Your task to perform on an android device: Clear the shopping cart on costco.com. Add "asus zenbook" to the cart on costco.com Image 0: 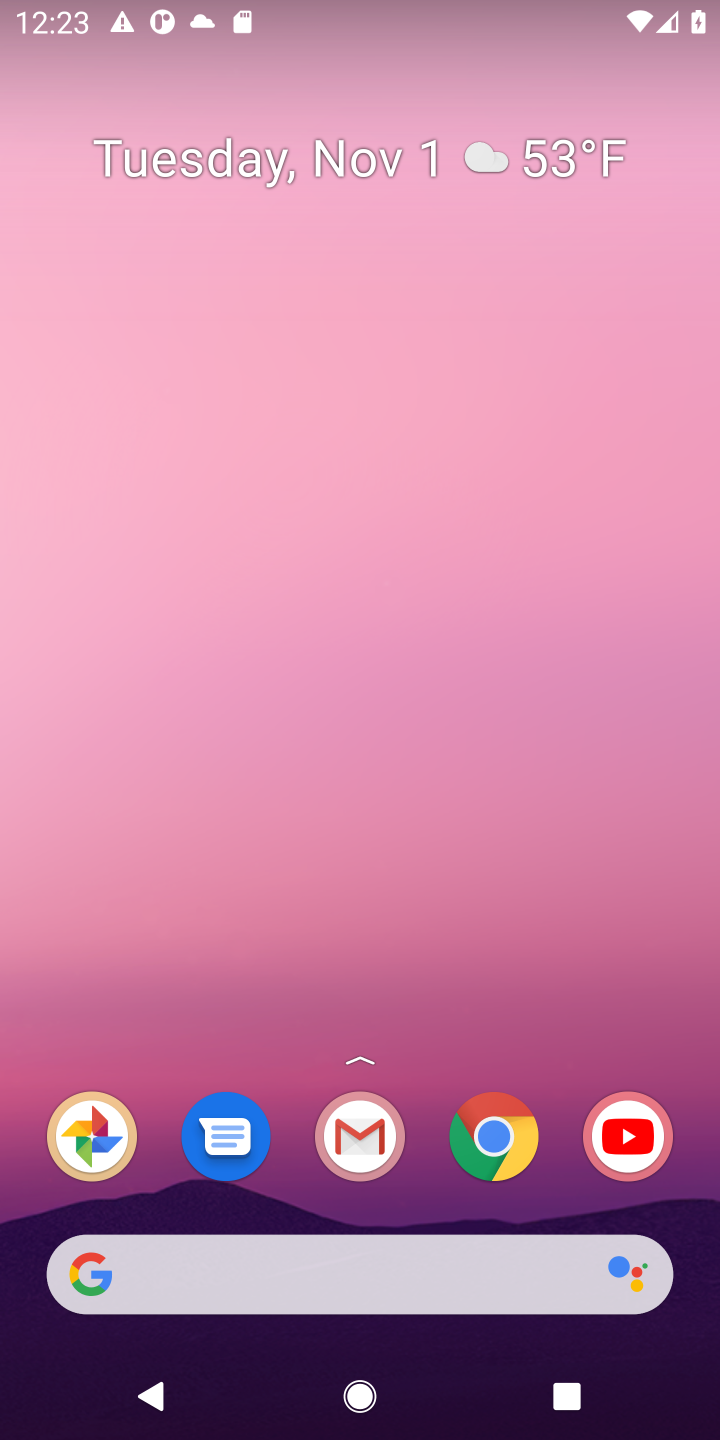
Step 0: press home button
Your task to perform on an android device: Clear the shopping cart on costco.com. Add "asus zenbook" to the cart on costco.com Image 1: 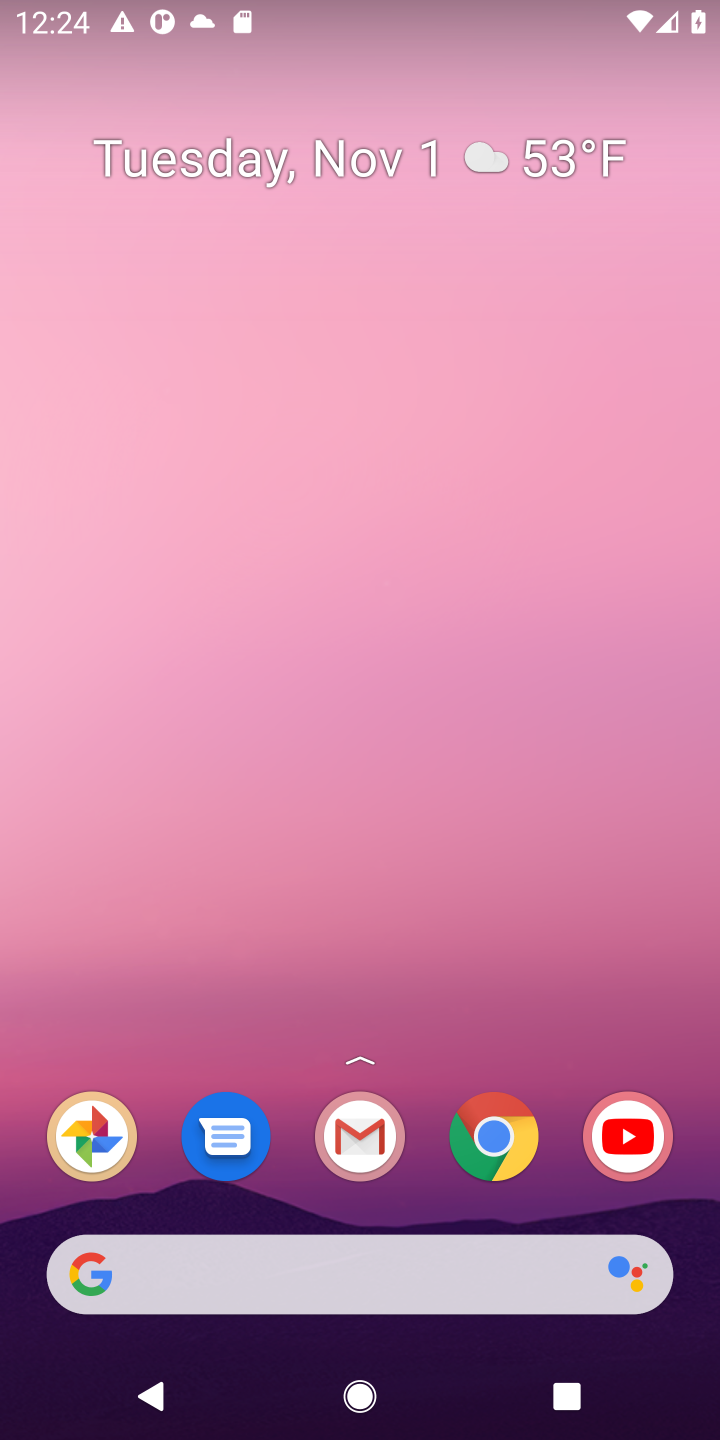
Step 1: click (132, 1262)
Your task to perform on an android device: Clear the shopping cart on costco.com. Add "asus zenbook" to the cart on costco.com Image 2: 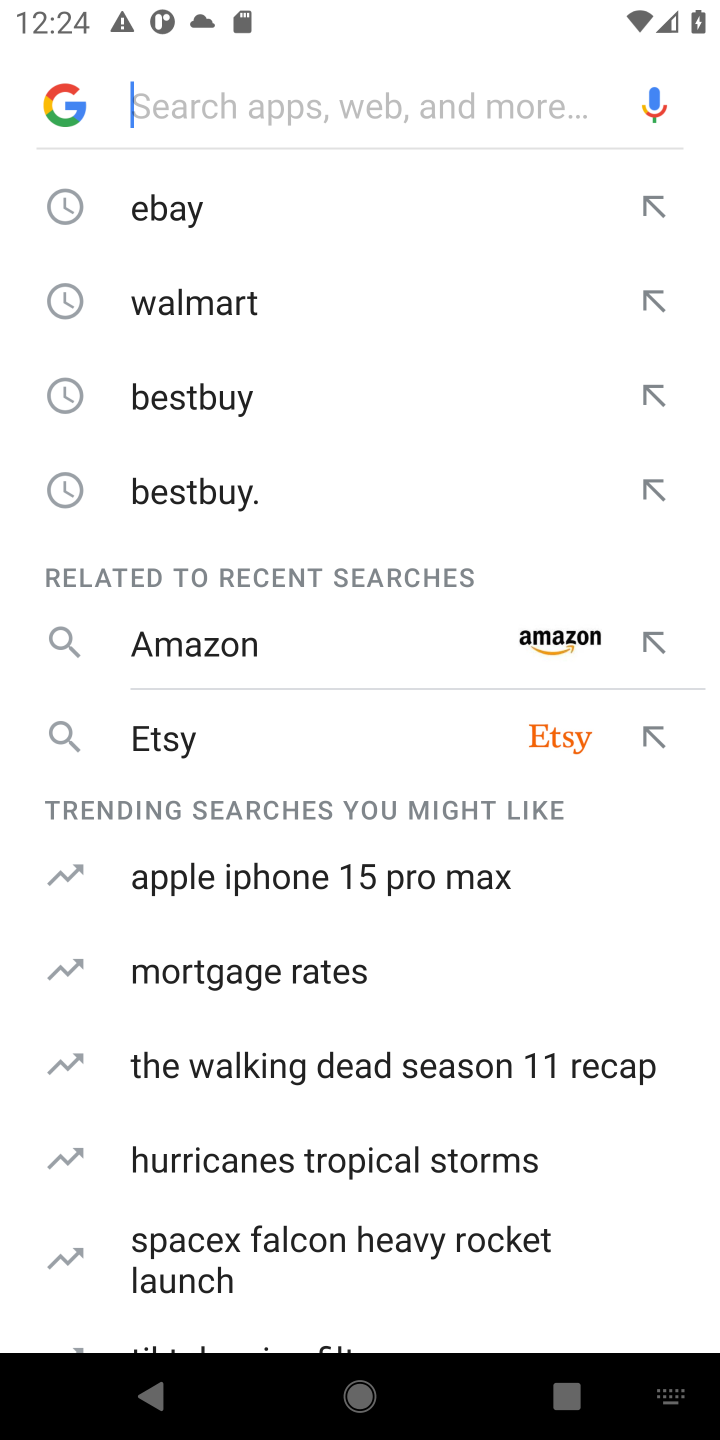
Step 2: type "costco.com"
Your task to perform on an android device: Clear the shopping cart on costco.com. Add "asus zenbook" to the cart on costco.com Image 3: 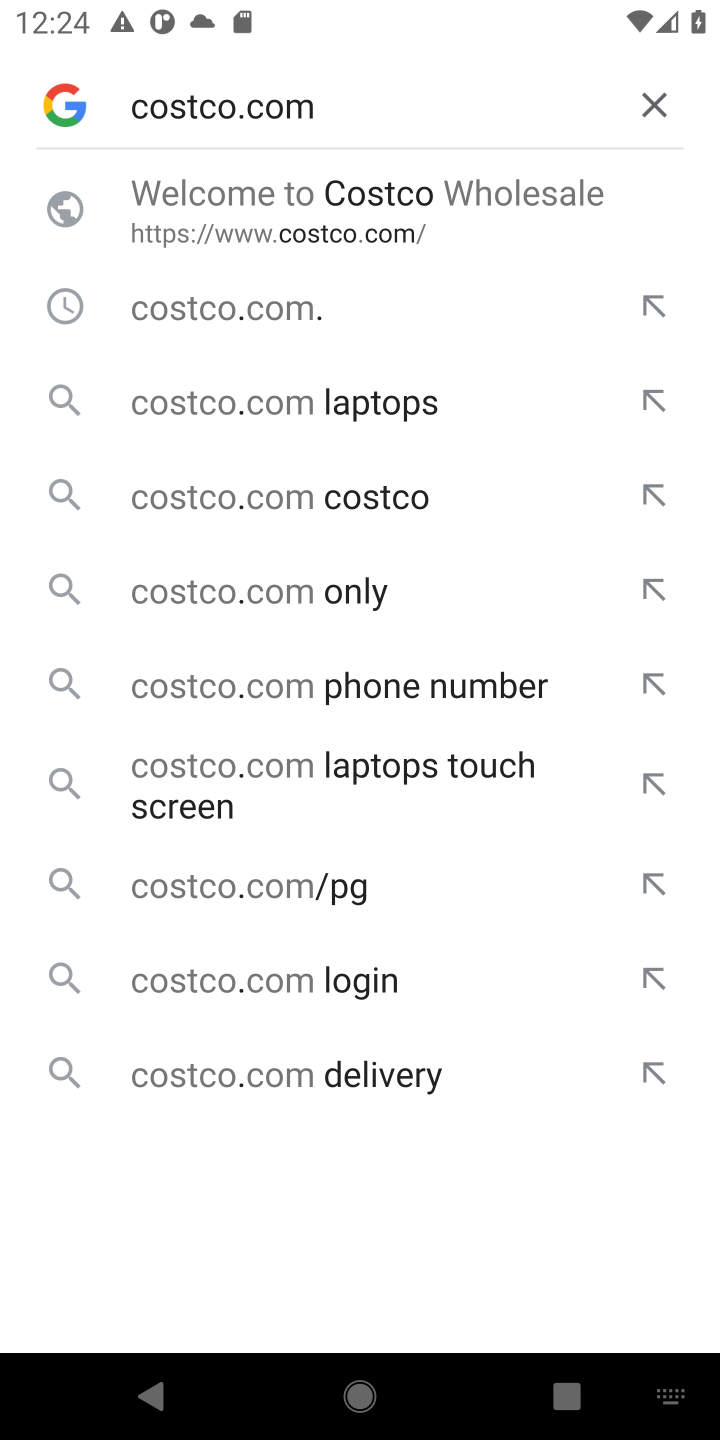
Step 3: press enter
Your task to perform on an android device: Clear the shopping cart on costco.com. Add "asus zenbook" to the cart on costco.com Image 4: 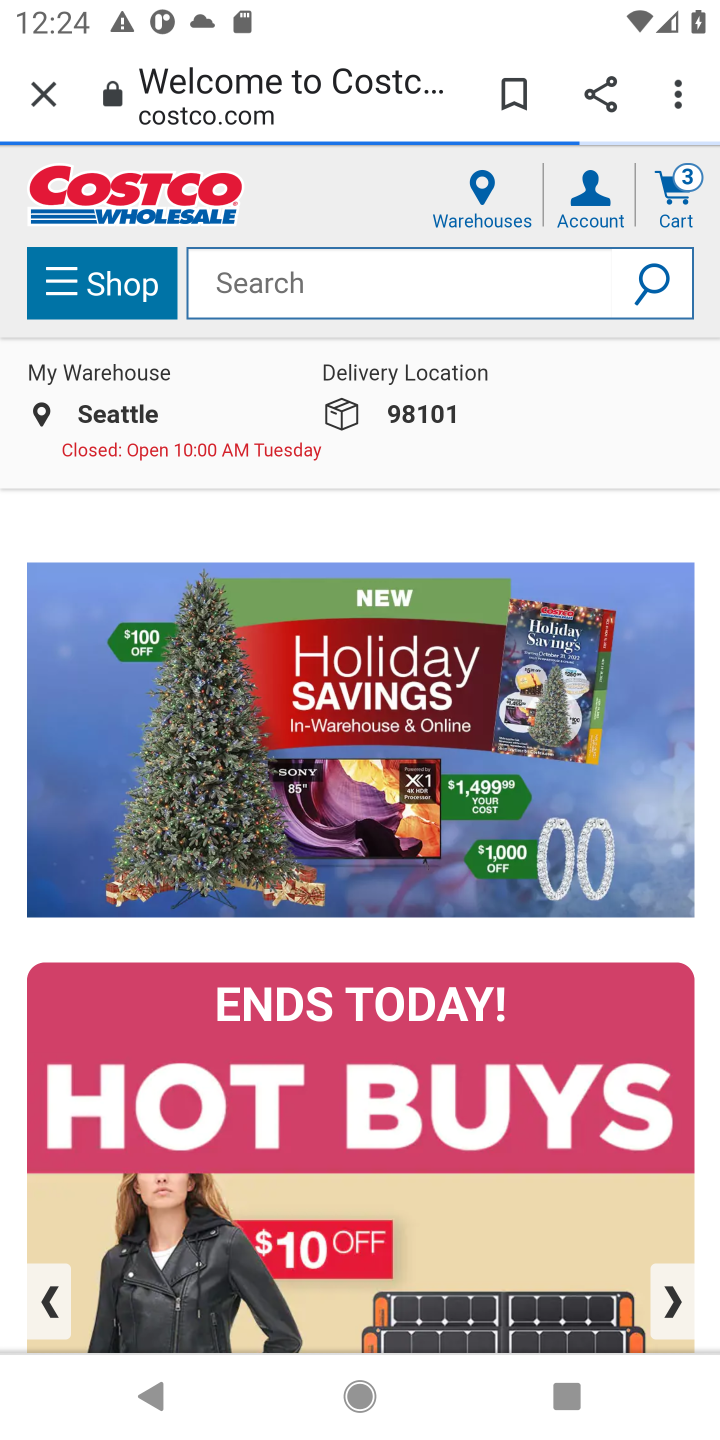
Step 4: click (250, 263)
Your task to perform on an android device: Clear the shopping cart on costco.com. Add "asus zenbook" to the cart on costco.com Image 5: 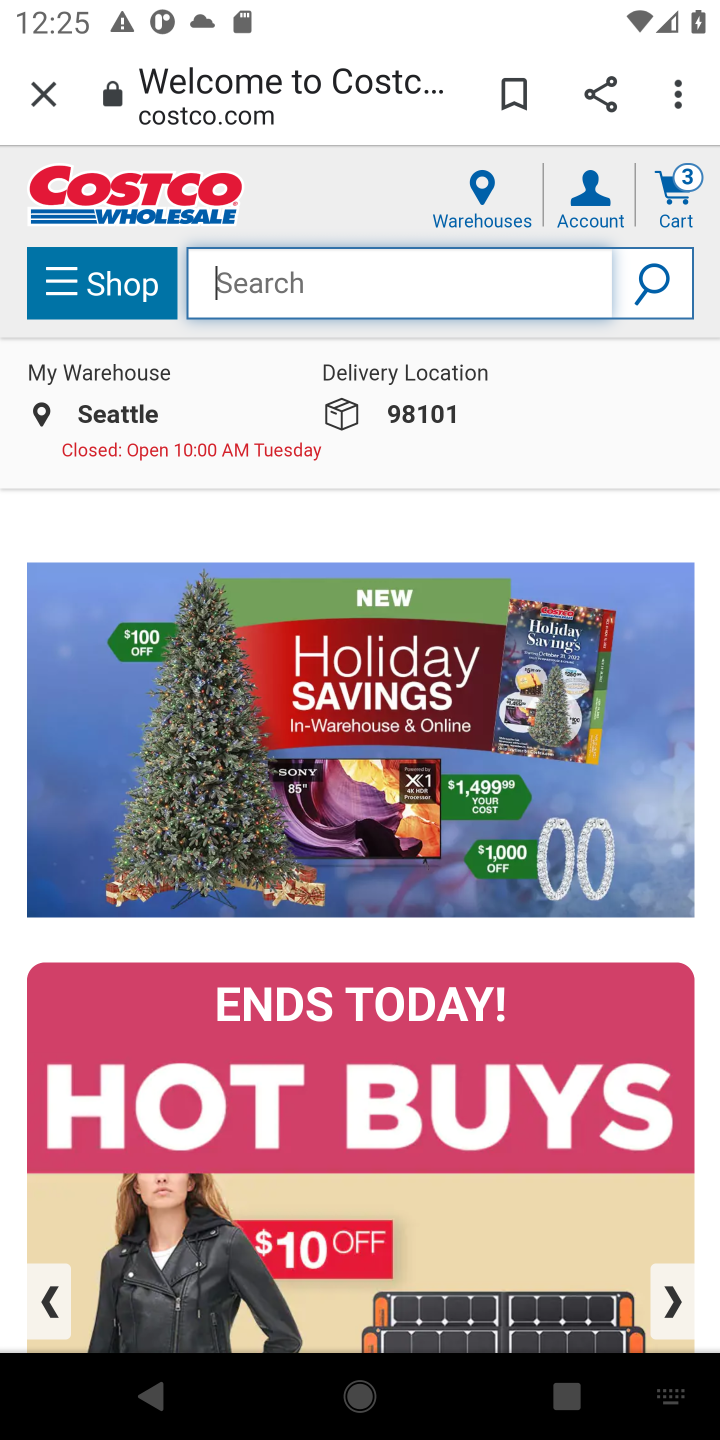
Step 5: type "asus zenbook"
Your task to perform on an android device: Clear the shopping cart on costco.com. Add "asus zenbook" to the cart on costco.com Image 6: 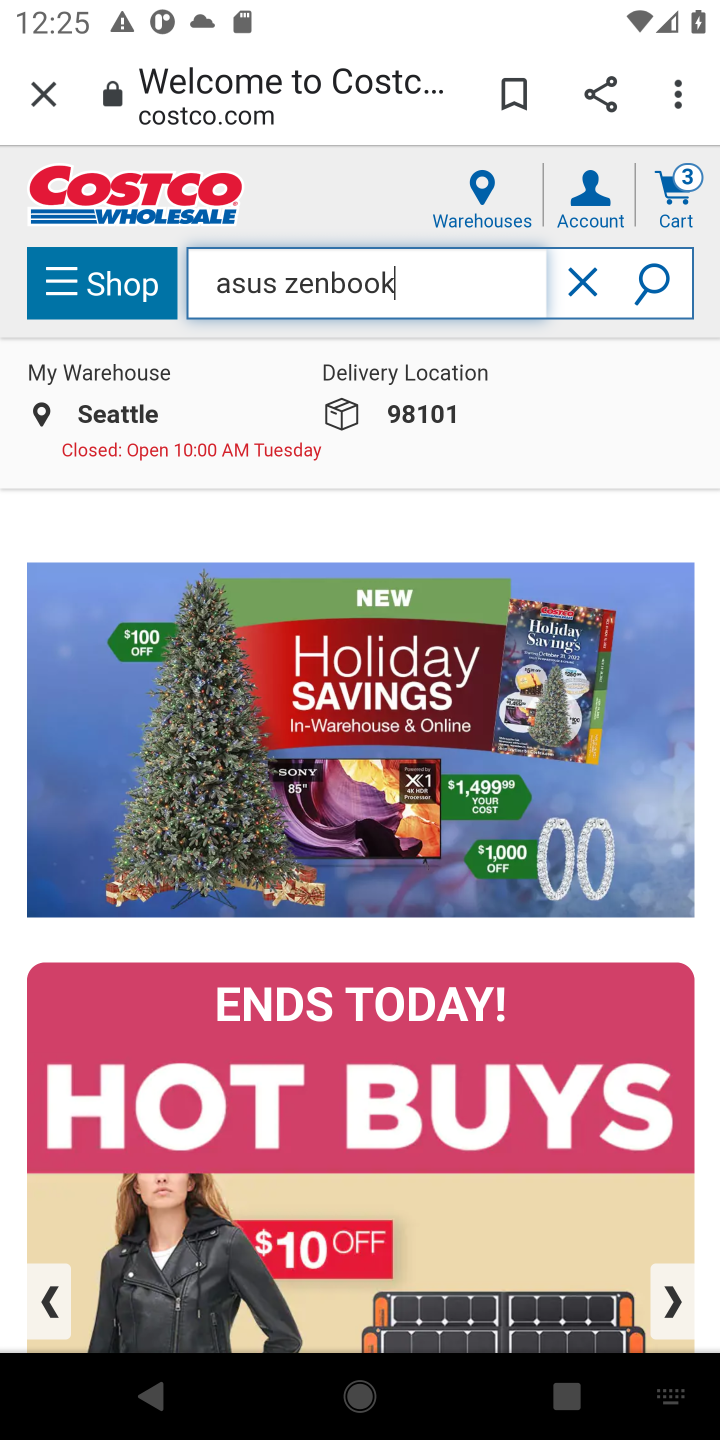
Step 6: press enter
Your task to perform on an android device: Clear the shopping cart on costco.com. Add "asus zenbook" to the cart on costco.com Image 7: 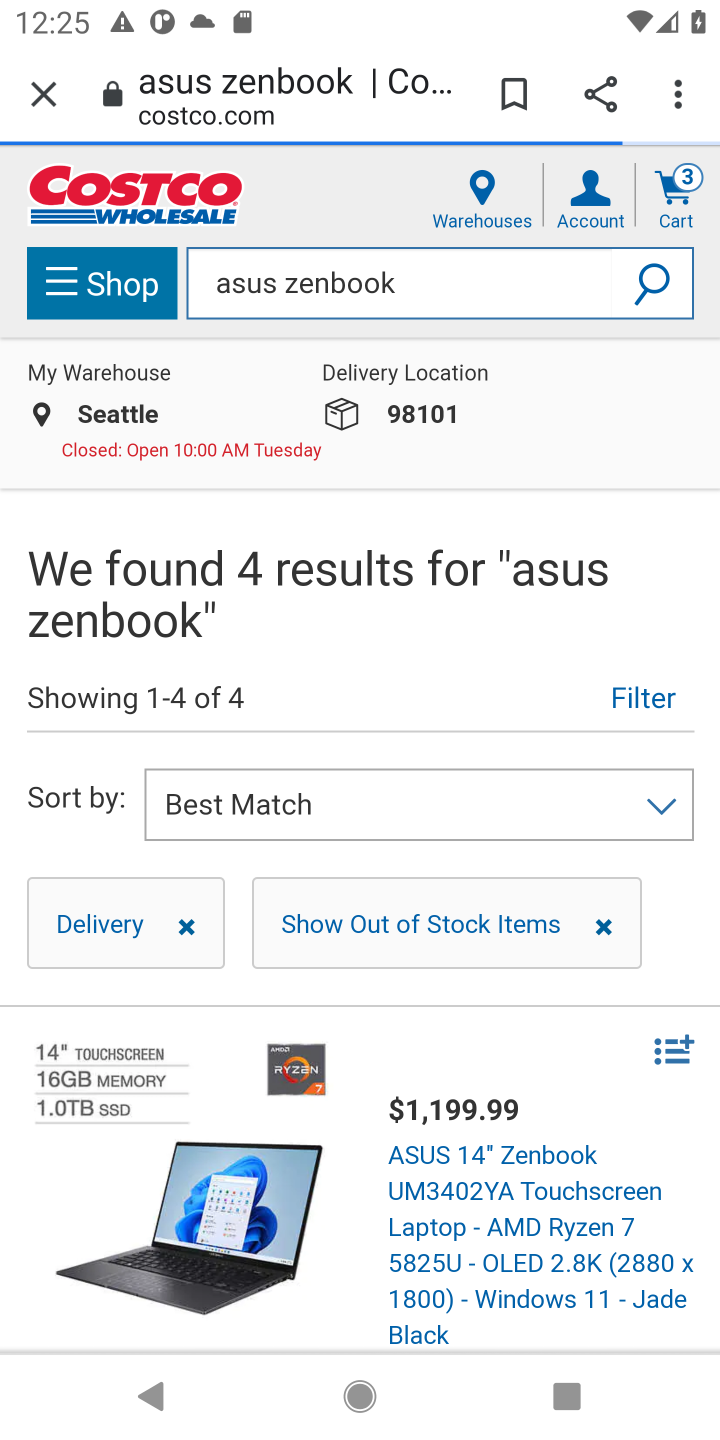
Step 7: drag from (541, 1261) to (538, 866)
Your task to perform on an android device: Clear the shopping cart on costco.com. Add "asus zenbook" to the cart on costco.com Image 8: 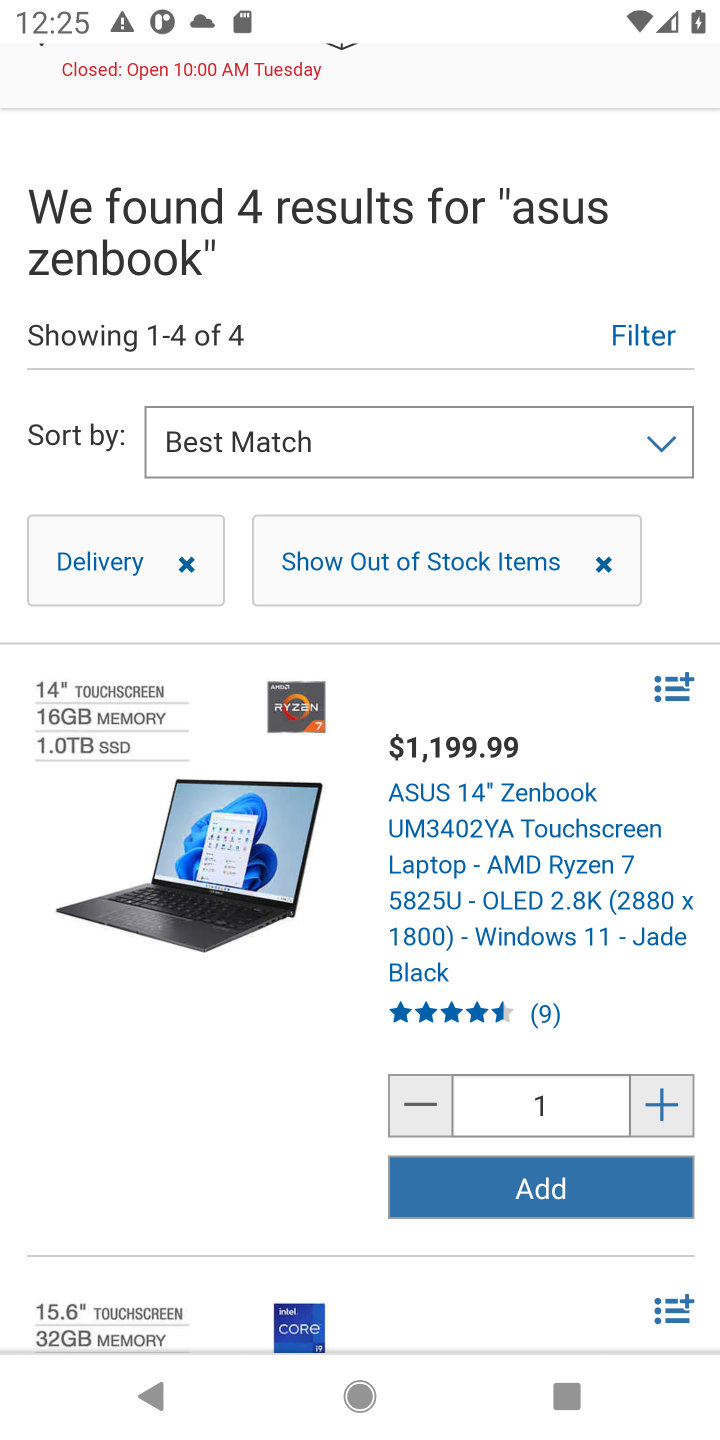
Step 8: click (564, 1225)
Your task to perform on an android device: Clear the shopping cart on costco.com. Add "asus zenbook" to the cart on costco.com Image 9: 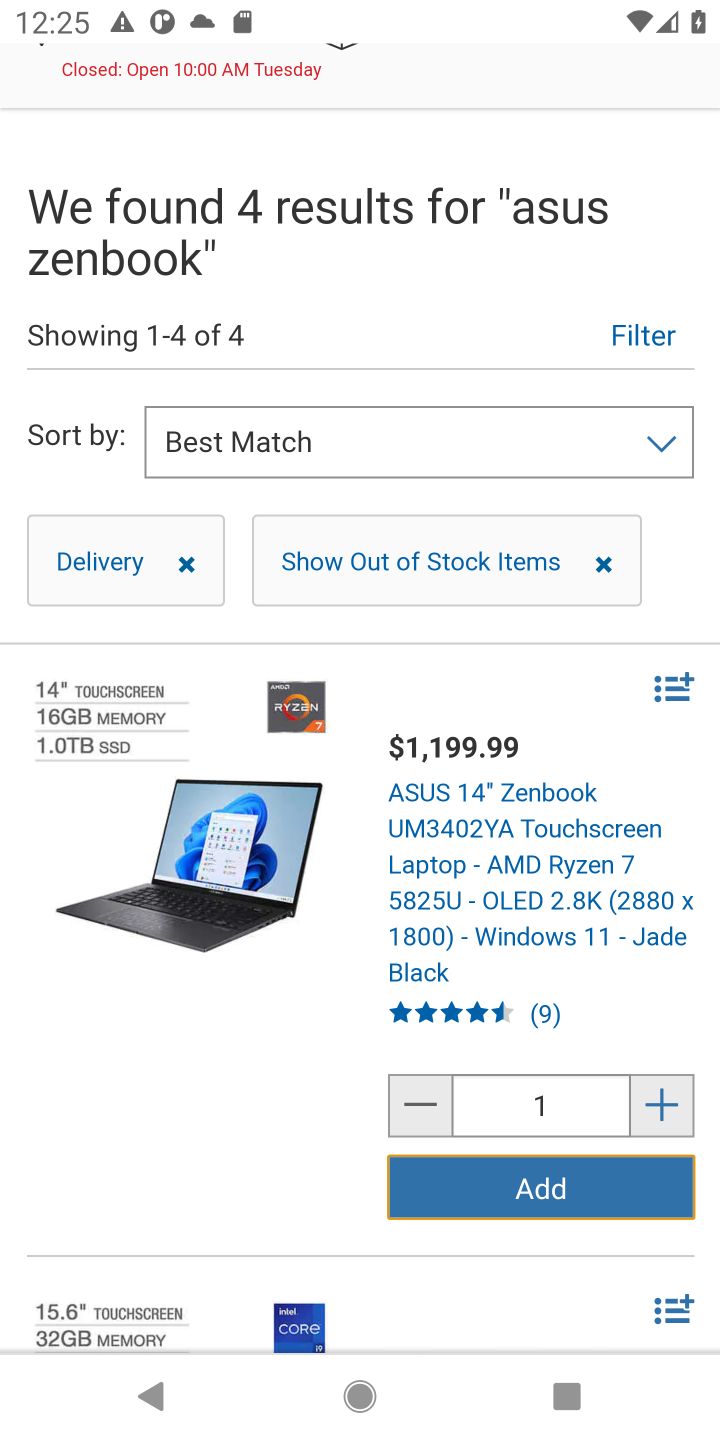
Step 9: click (540, 1185)
Your task to perform on an android device: Clear the shopping cart on costco.com. Add "asus zenbook" to the cart on costco.com Image 10: 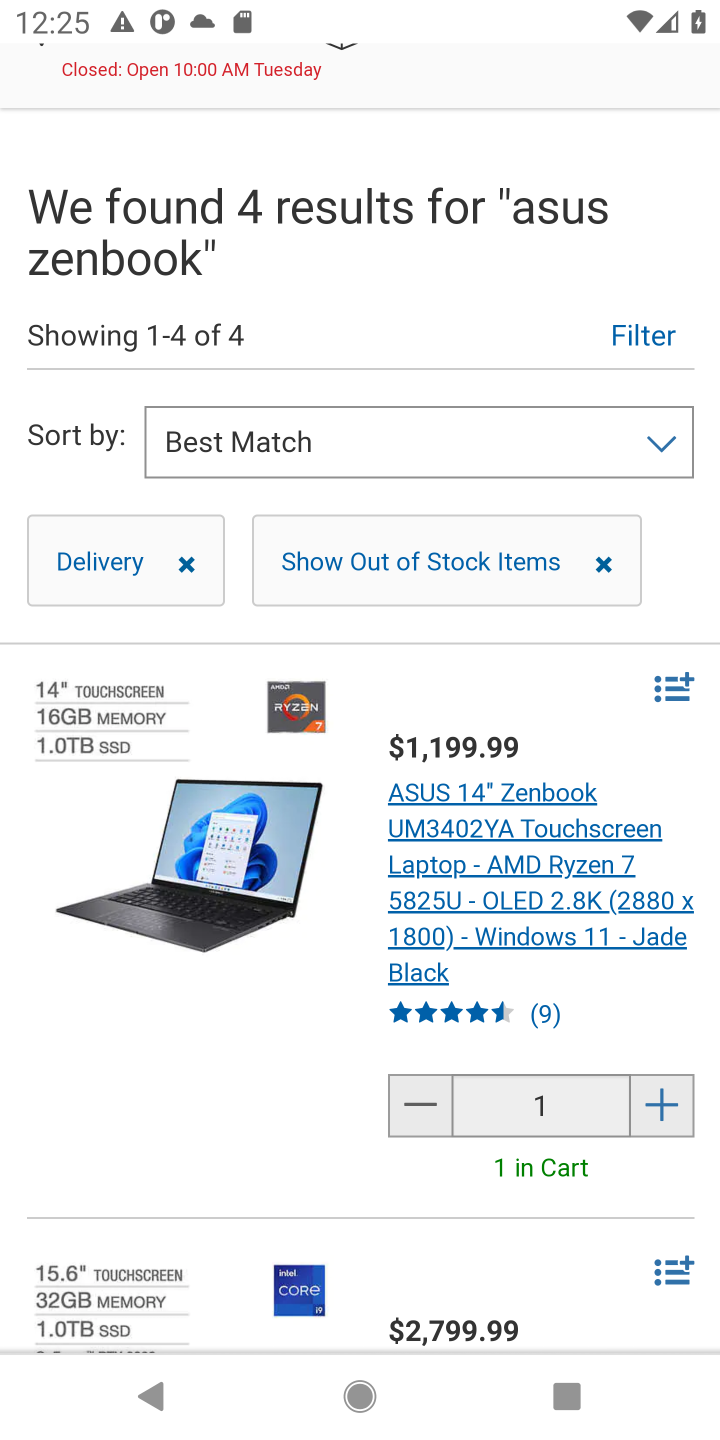
Step 10: task complete